Your task to perform on an android device: toggle pop-ups in chrome Image 0: 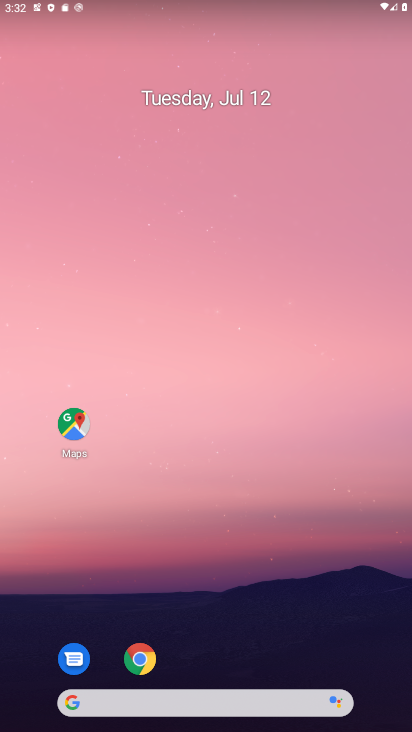
Step 0: click (139, 657)
Your task to perform on an android device: toggle pop-ups in chrome Image 1: 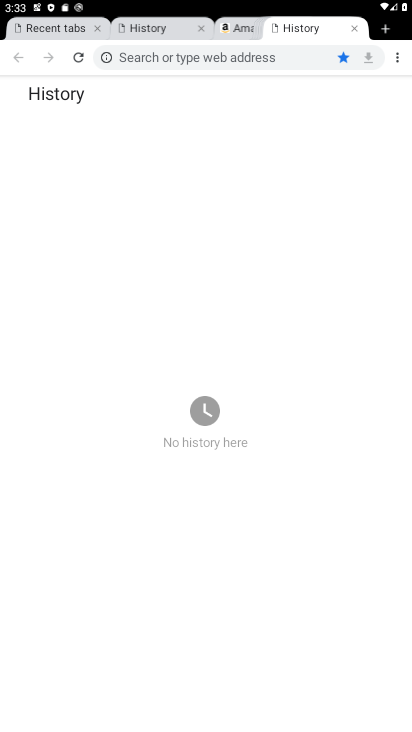
Step 1: click (399, 61)
Your task to perform on an android device: toggle pop-ups in chrome Image 2: 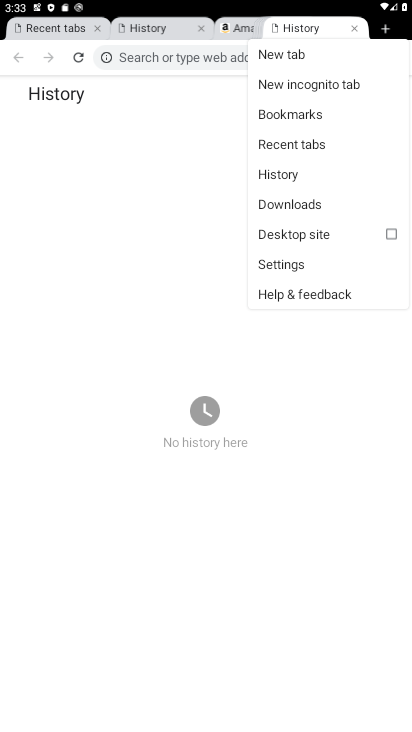
Step 2: click (286, 264)
Your task to perform on an android device: toggle pop-ups in chrome Image 3: 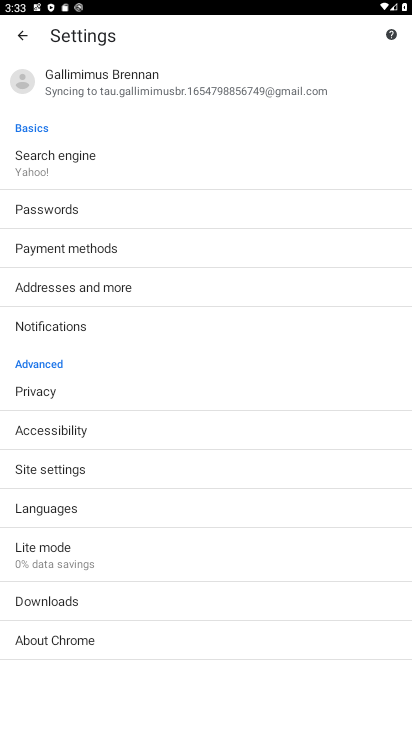
Step 3: click (53, 469)
Your task to perform on an android device: toggle pop-ups in chrome Image 4: 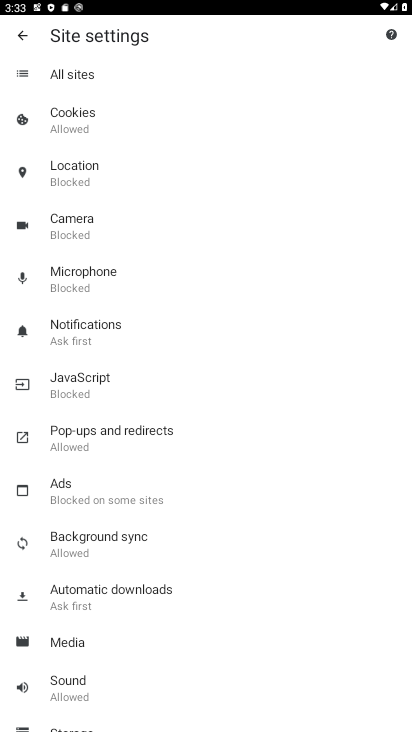
Step 4: click (78, 428)
Your task to perform on an android device: toggle pop-ups in chrome Image 5: 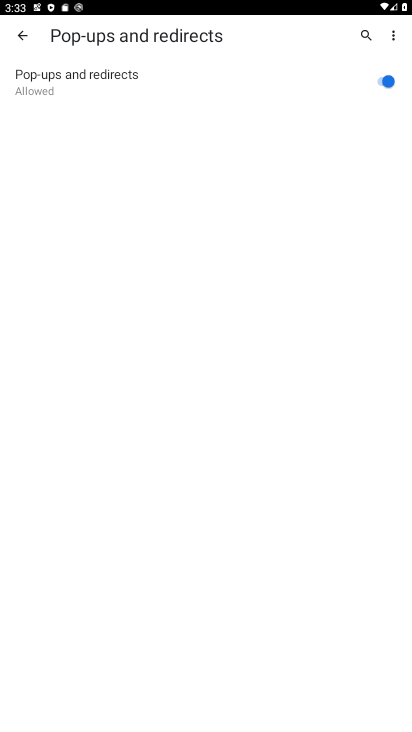
Step 5: click (376, 77)
Your task to perform on an android device: toggle pop-ups in chrome Image 6: 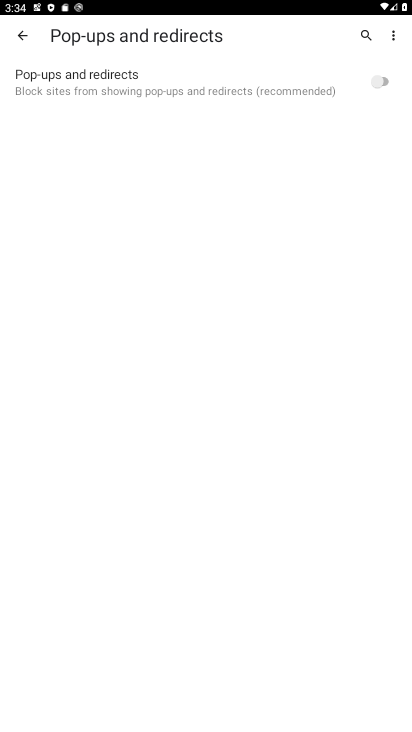
Step 6: task complete